Your task to perform on an android device: Go to Yahoo.com Image 0: 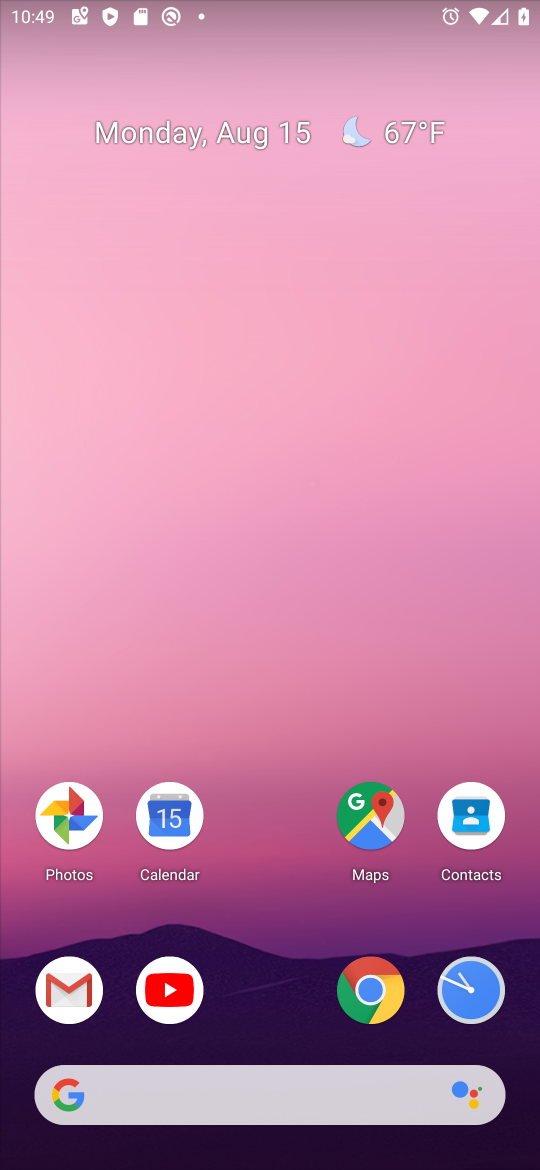
Step 0: click (374, 999)
Your task to perform on an android device: Go to Yahoo.com Image 1: 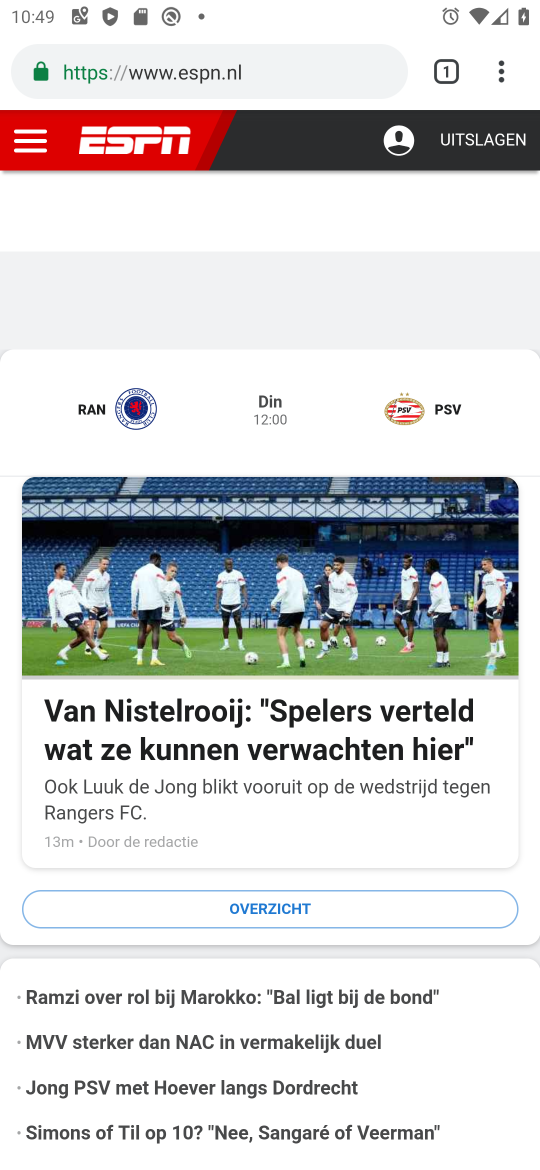
Step 1: click (511, 64)
Your task to perform on an android device: Go to Yahoo.com Image 2: 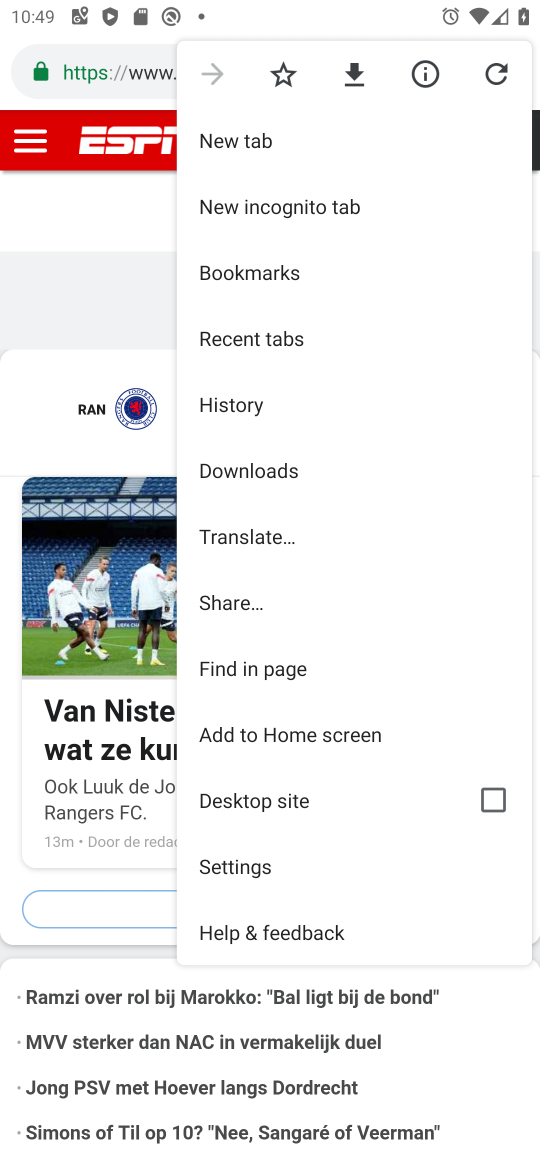
Step 2: click (248, 146)
Your task to perform on an android device: Go to Yahoo.com Image 3: 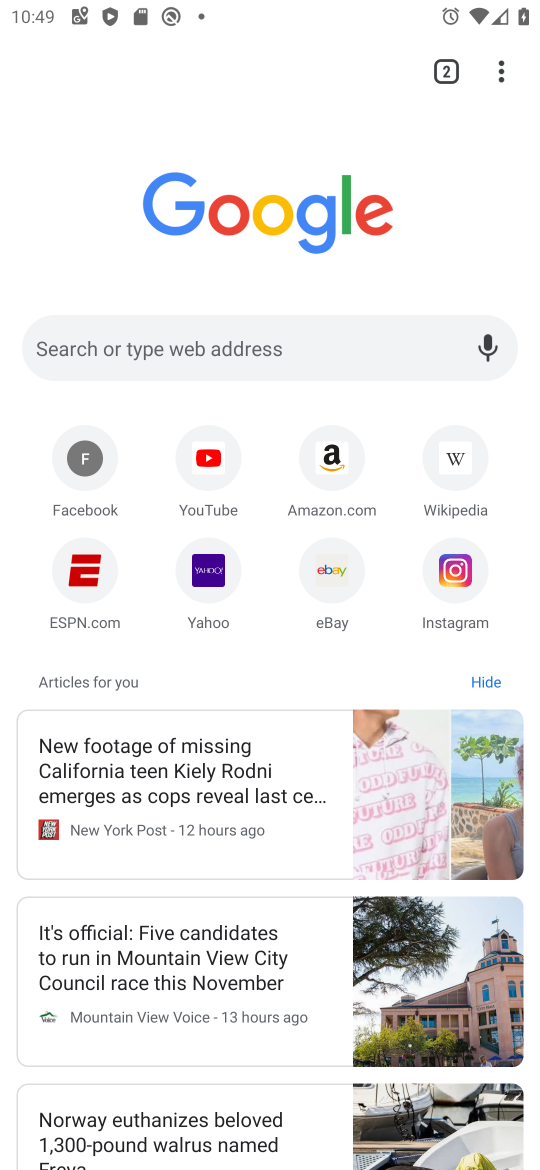
Step 3: click (216, 592)
Your task to perform on an android device: Go to Yahoo.com Image 4: 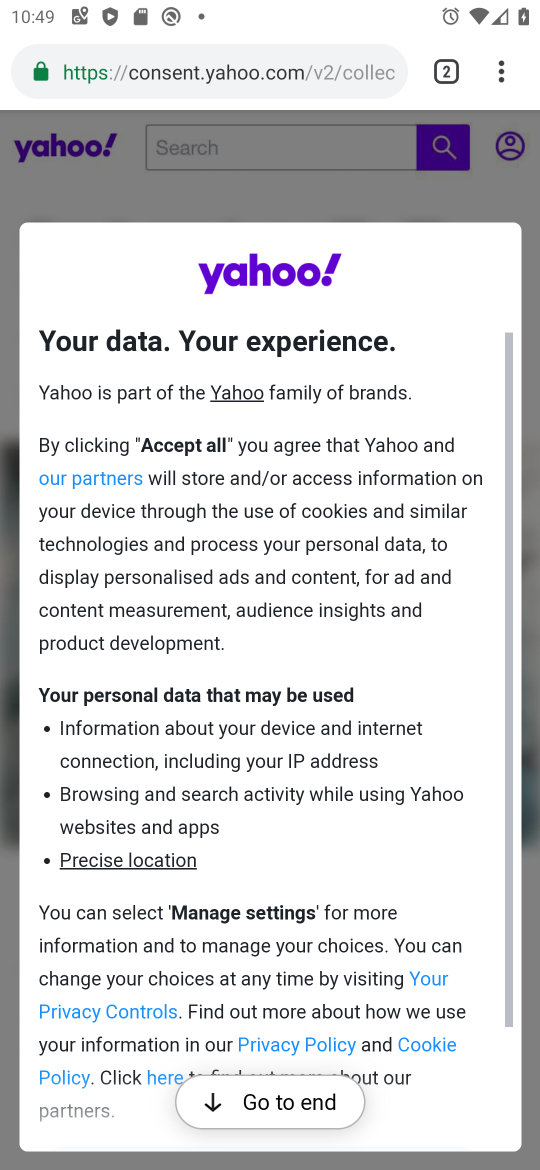
Step 4: click (259, 1093)
Your task to perform on an android device: Go to Yahoo.com Image 5: 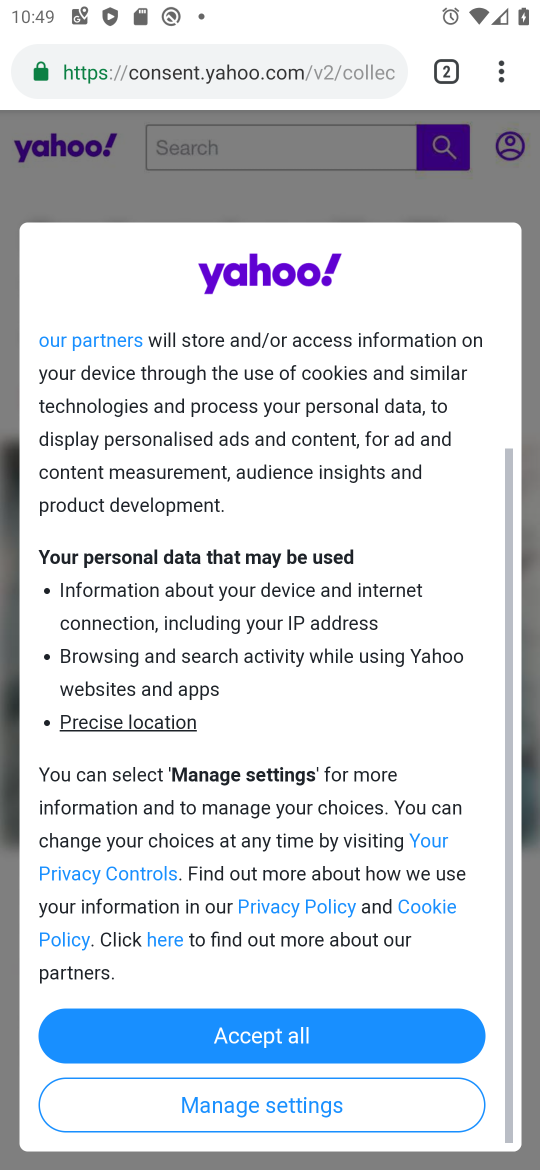
Step 5: click (269, 1036)
Your task to perform on an android device: Go to Yahoo.com Image 6: 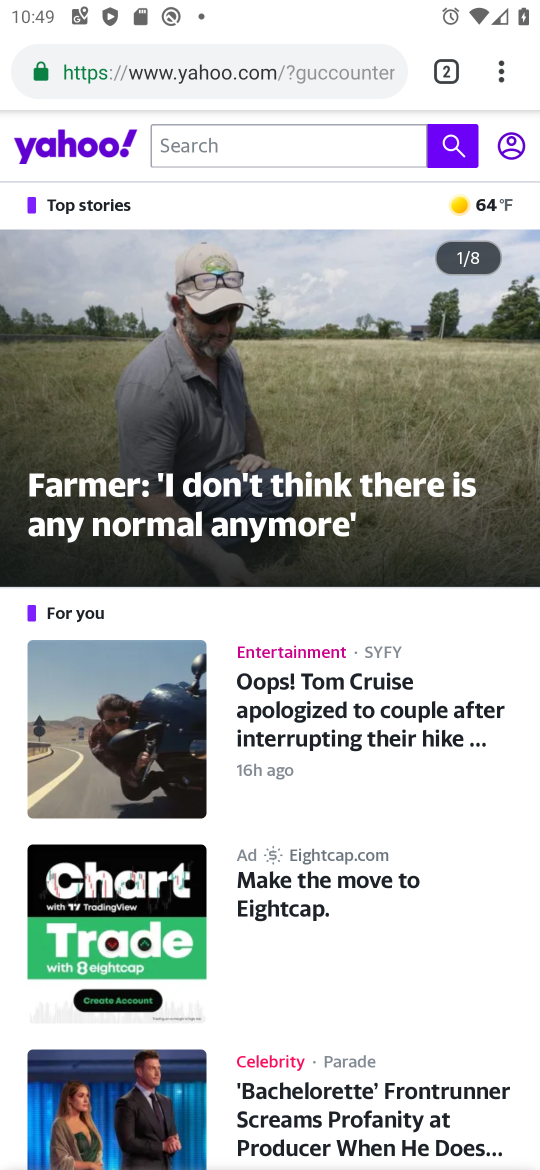
Step 6: task complete